Your task to perform on an android device: toggle airplane mode Image 0: 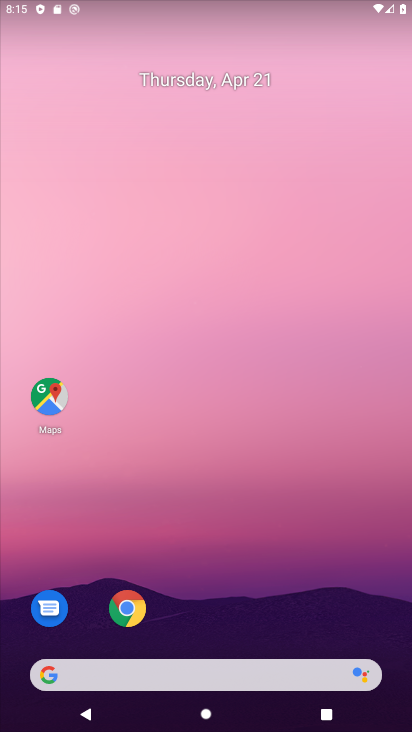
Step 0: drag from (232, 605) to (190, 111)
Your task to perform on an android device: toggle airplane mode Image 1: 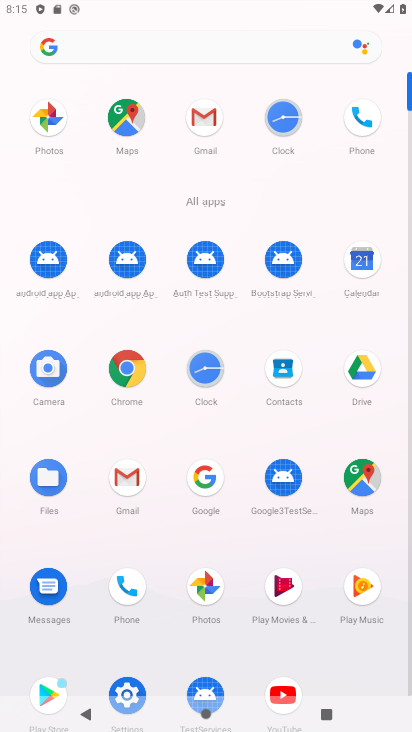
Step 1: click (127, 687)
Your task to perform on an android device: toggle airplane mode Image 2: 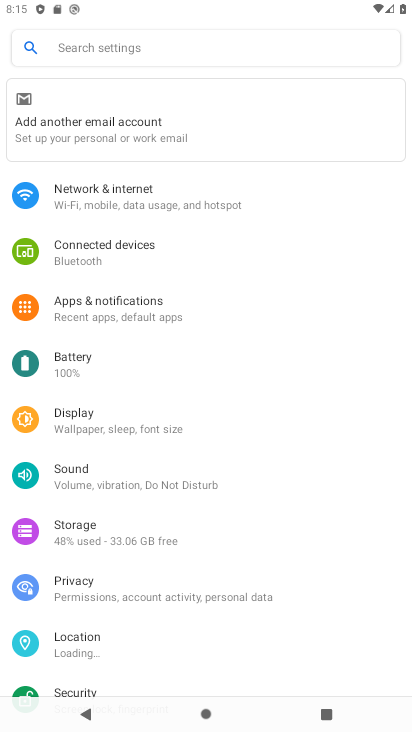
Step 2: click (122, 203)
Your task to perform on an android device: toggle airplane mode Image 3: 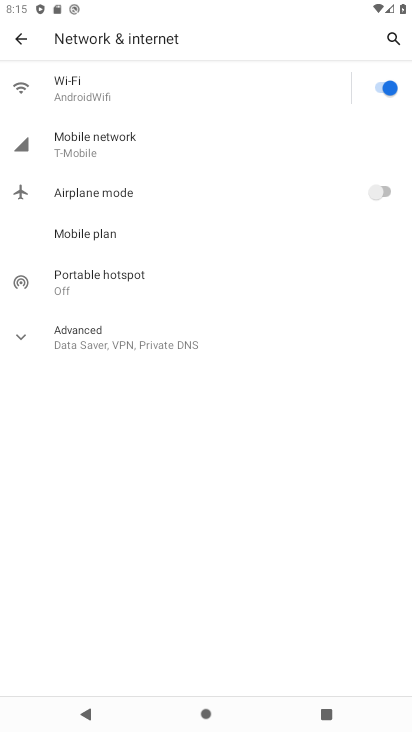
Step 3: click (379, 190)
Your task to perform on an android device: toggle airplane mode Image 4: 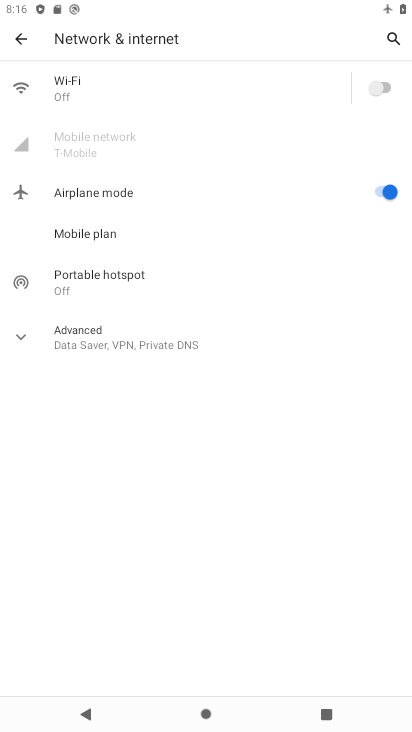
Step 4: task complete